Your task to perform on an android device: Open network settings Image 0: 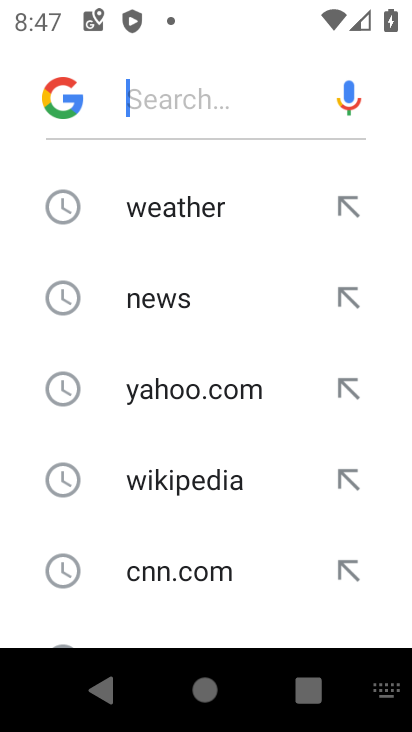
Step 0: press back button
Your task to perform on an android device: Open network settings Image 1: 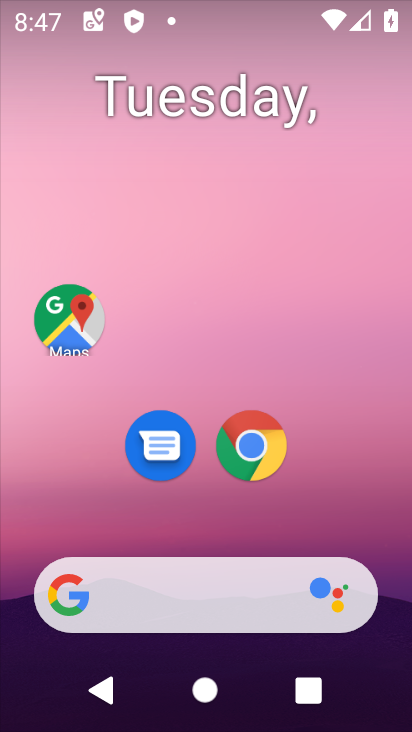
Step 1: drag from (329, 502) to (316, 172)
Your task to perform on an android device: Open network settings Image 2: 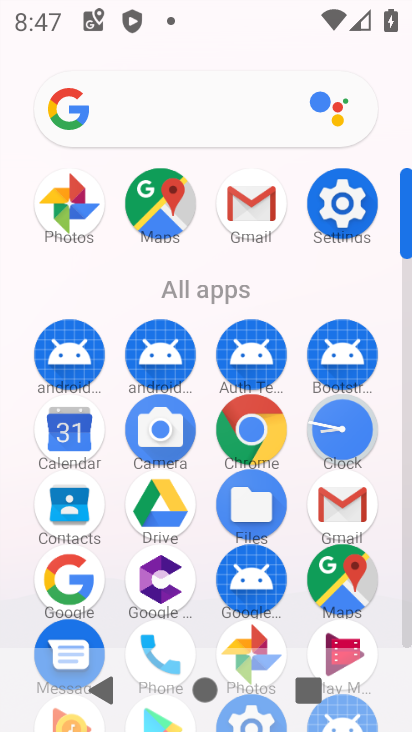
Step 2: click (324, 199)
Your task to perform on an android device: Open network settings Image 3: 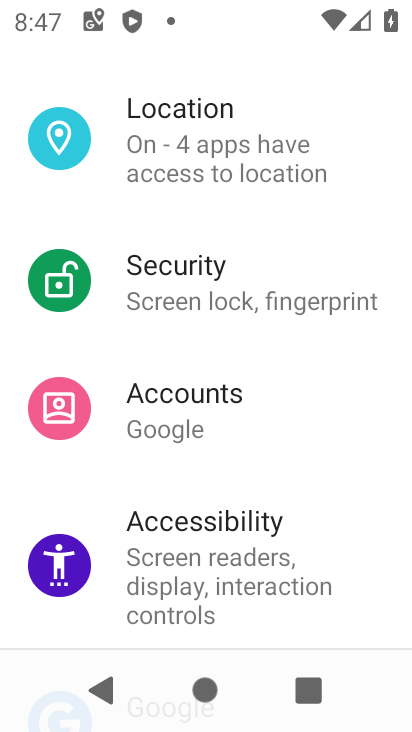
Step 3: drag from (275, 282) to (120, 709)
Your task to perform on an android device: Open network settings Image 4: 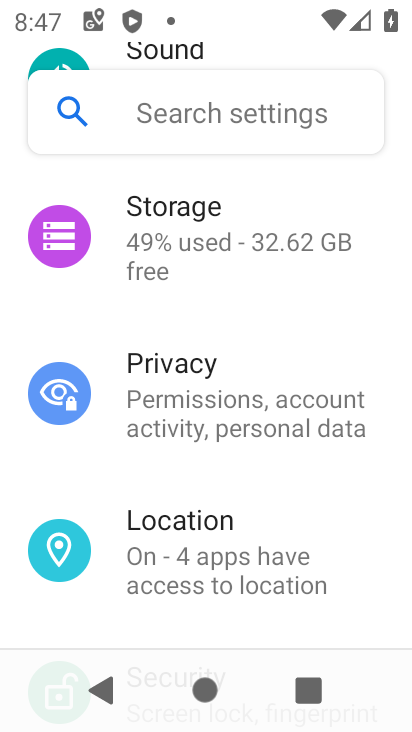
Step 4: drag from (166, 195) to (75, 728)
Your task to perform on an android device: Open network settings Image 5: 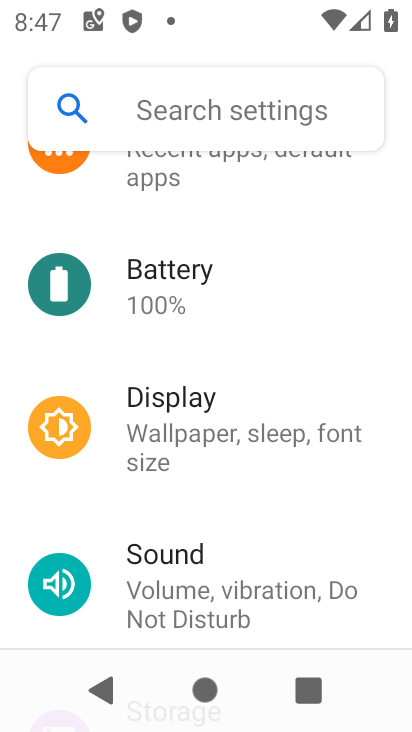
Step 5: click (183, 186)
Your task to perform on an android device: Open network settings Image 6: 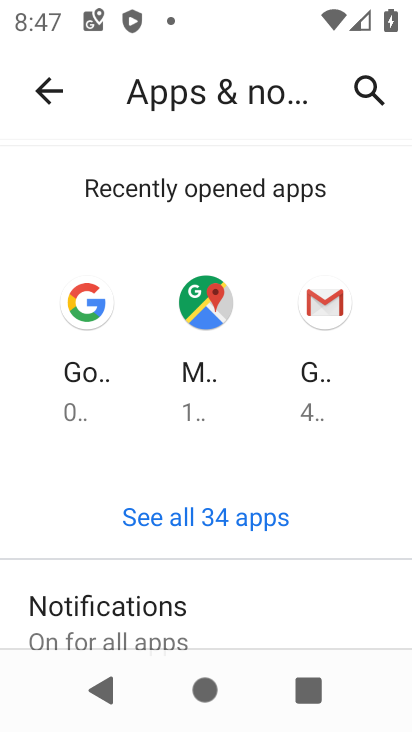
Step 6: task complete